Your task to perform on an android device: toggle javascript in the chrome app Image 0: 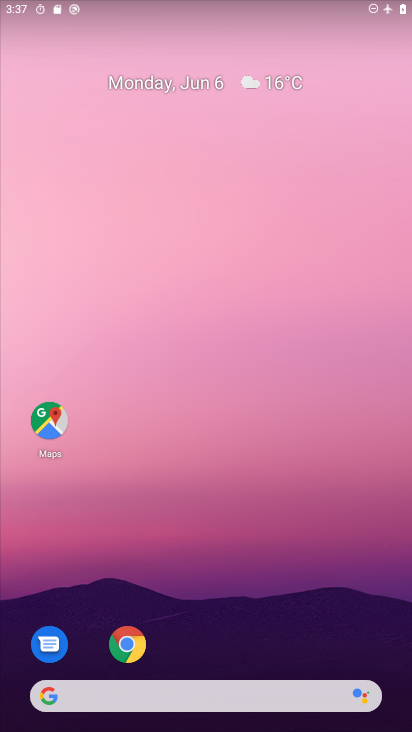
Step 0: click (126, 645)
Your task to perform on an android device: toggle javascript in the chrome app Image 1: 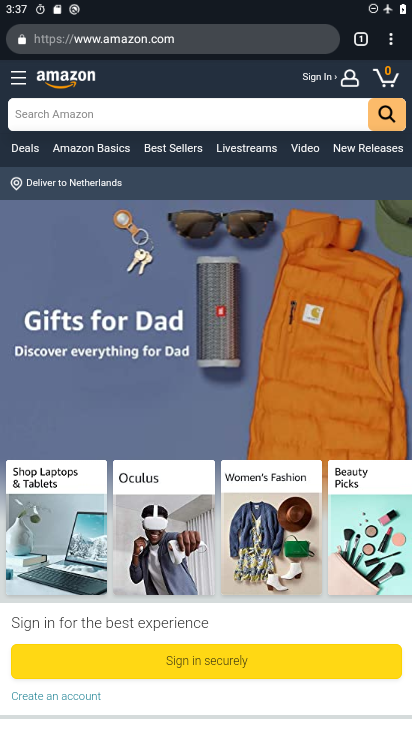
Step 1: click (393, 39)
Your task to perform on an android device: toggle javascript in the chrome app Image 2: 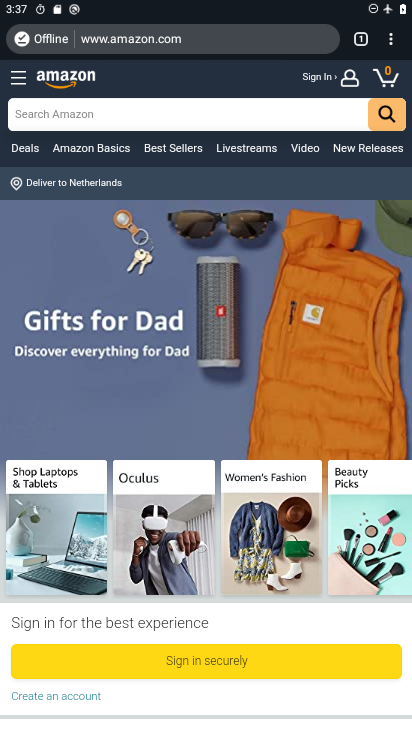
Step 2: click (393, 39)
Your task to perform on an android device: toggle javascript in the chrome app Image 3: 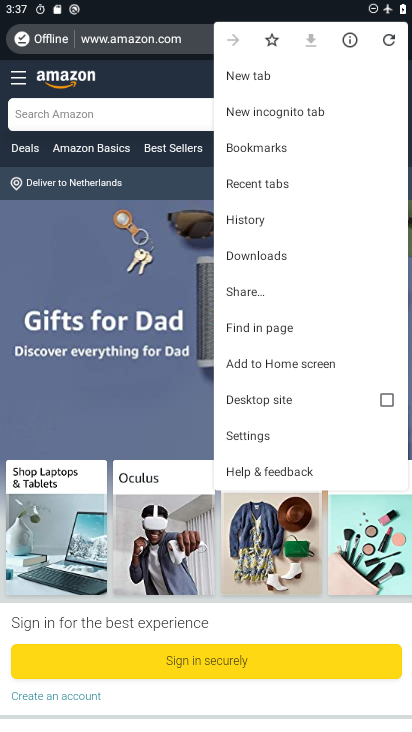
Step 3: click (252, 435)
Your task to perform on an android device: toggle javascript in the chrome app Image 4: 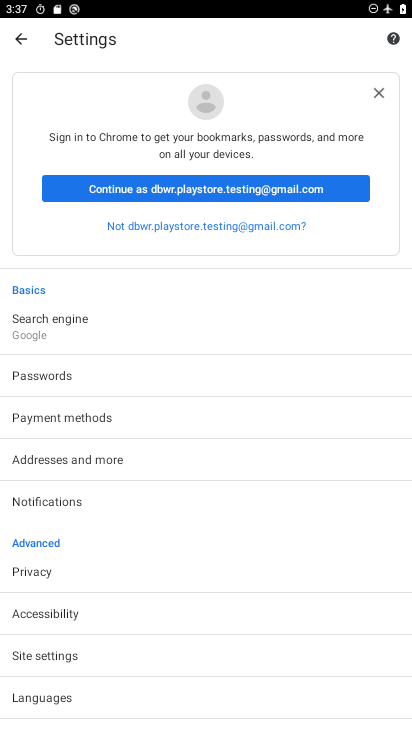
Step 4: click (70, 656)
Your task to perform on an android device: toggle javascript in the chrome app Image 5: 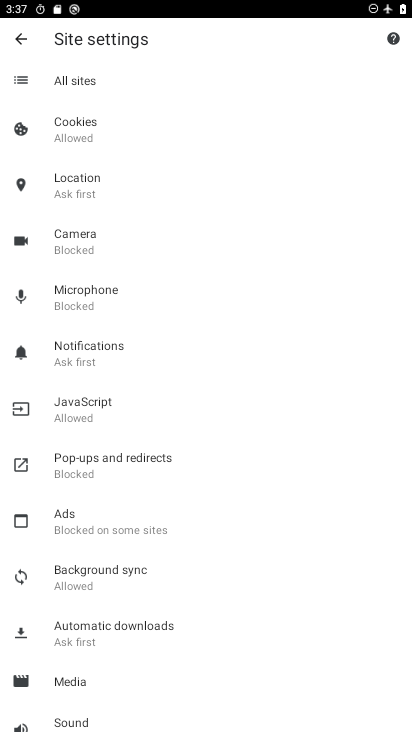
Step 5: click (119, 414)
Your task to perform on an android device: toggle javascript in the chrome app Image 6: 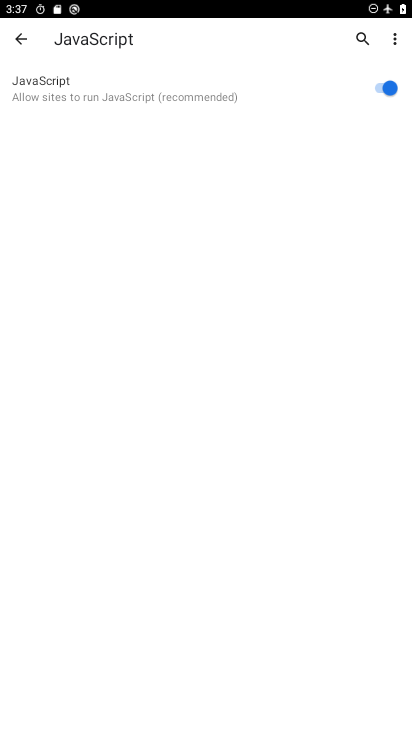
Step 6: click (391, 87)
Your task to perform on an android device: toggle javascript in the chrome app Image 7: 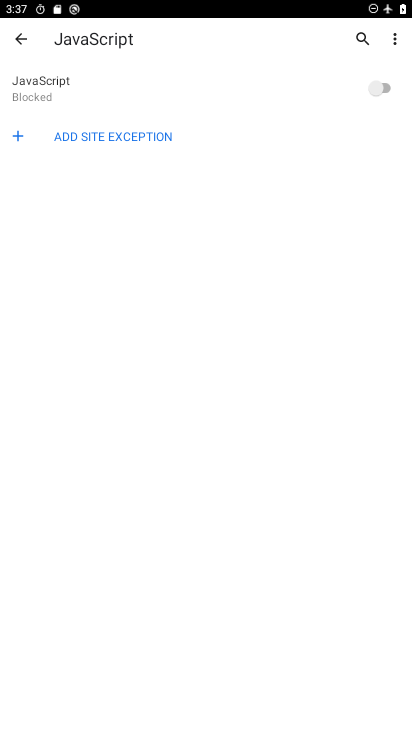
Step 7: task complete